Your task to perform on an android device: Open Amazon Image 0: 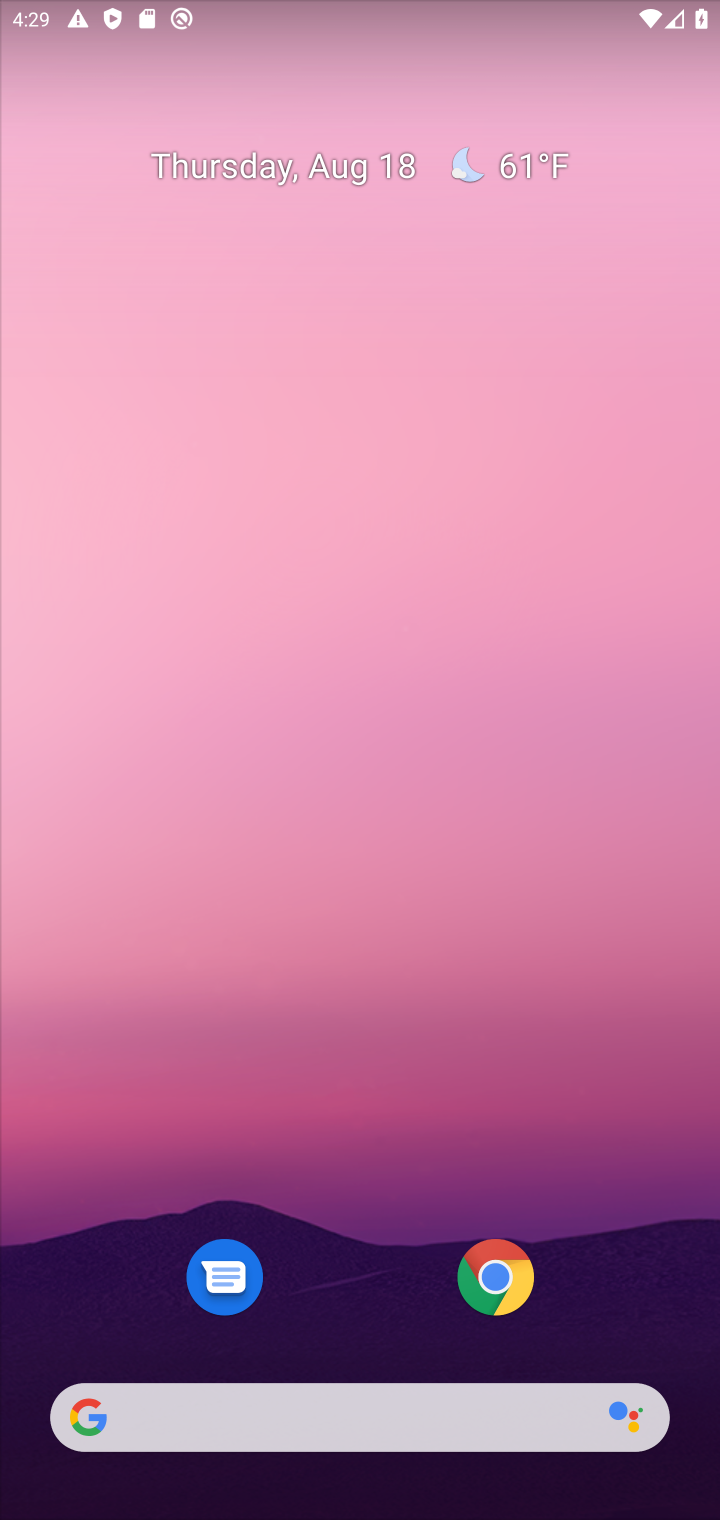
Step 0: drag from (421, 551) to (547, 265)
Your task to perform on an android device: Open Amazon Image 1: 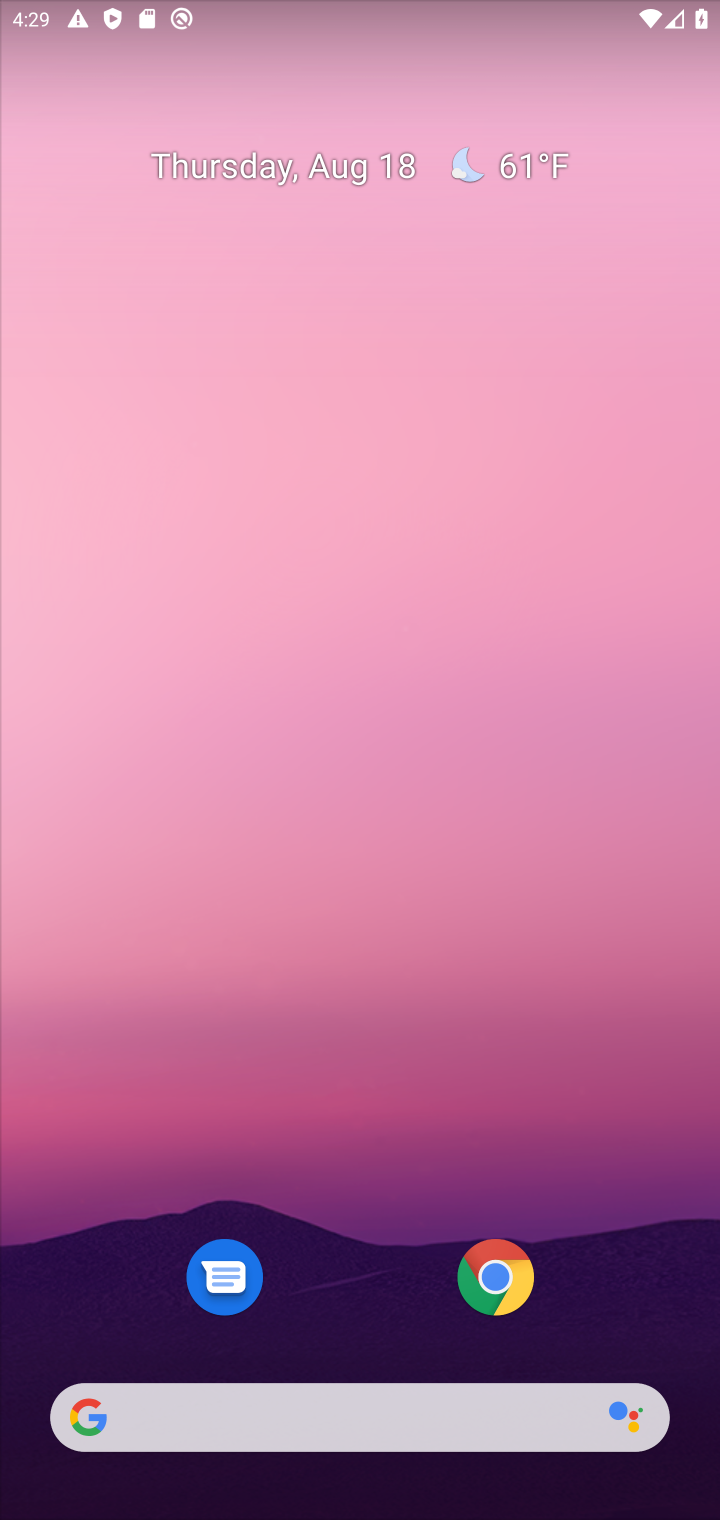
Step 1: task complete